Your task to perform on an android device: Open Google Chrome and open the bookmarks view Image 0: 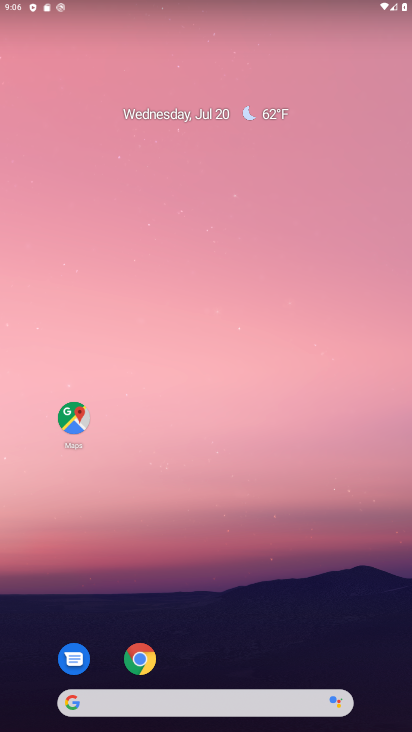
Step 0: drag from (221, 663) to (188, 52)
Your task to perform on an android device: Open Google Chrome and open the bookmarks view Image 1: 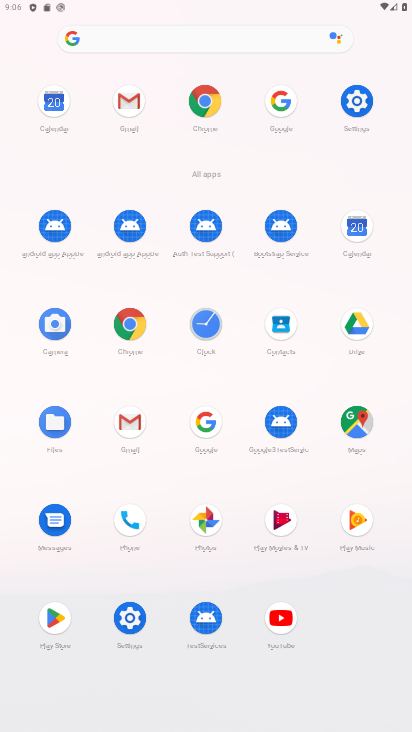
Step 1: click (117, 304)
Your task to perform on an android device: Open Google Chrome and open the bookmarks view Image 2: 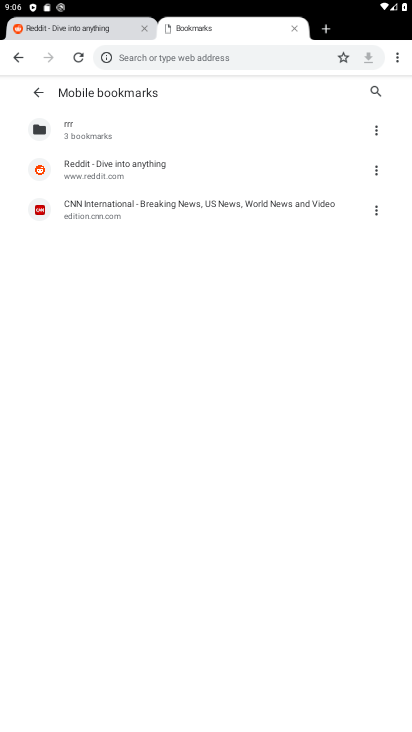
Step 2: click (391, 60)
Your task to perform on an android device: Open Google Chrome and open the bookmarks view Image 3: 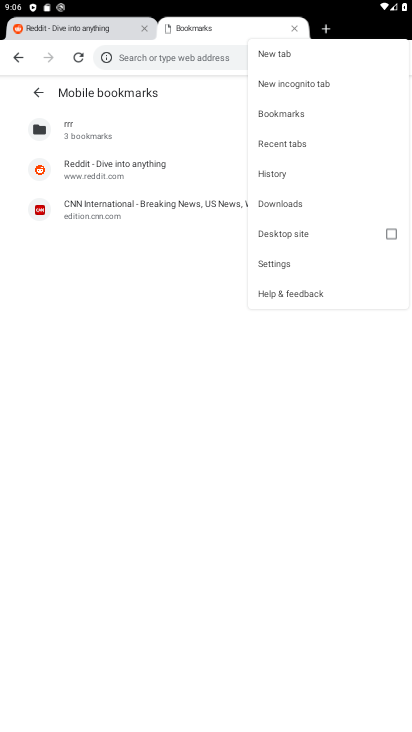
Step 3: click (273, 115)
Your task to perform on an android device: Open Google Chrome and open the bookmarks view Image 4: 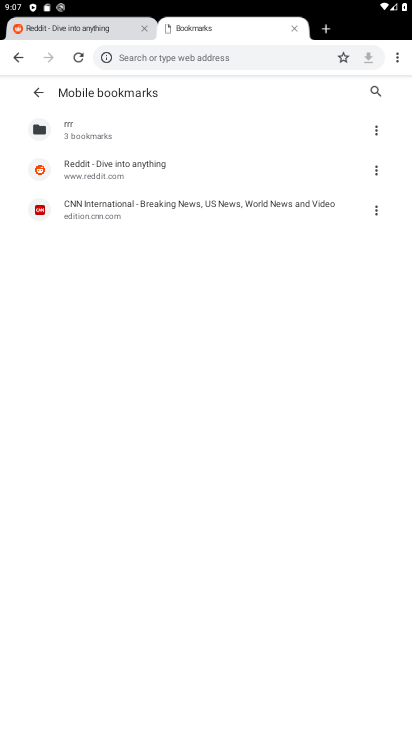
Step 4: task complete